Your task to perform on an android device: Go to wifi settings Image 0: 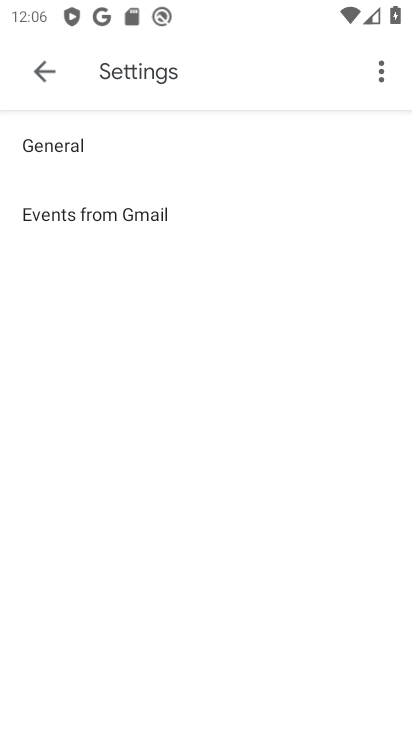
Step 0: click (52, 77)
Your task to perform on an android device: Go to wifi settings Image 1: 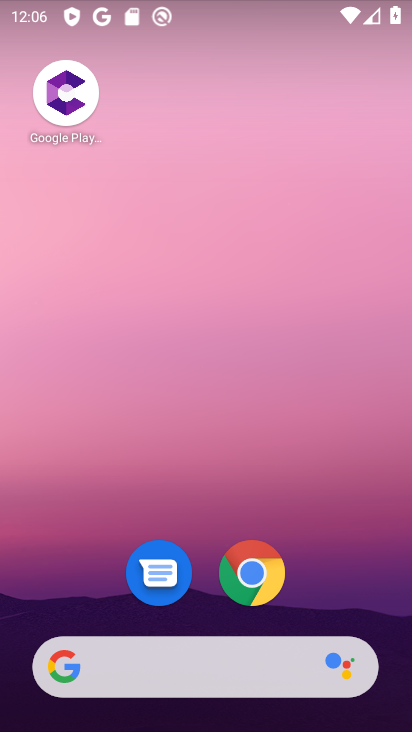
Step 1: drag from (222, 526) to (248, 160)
Your task to perform on an android device: Go to wifi settings Image 2: 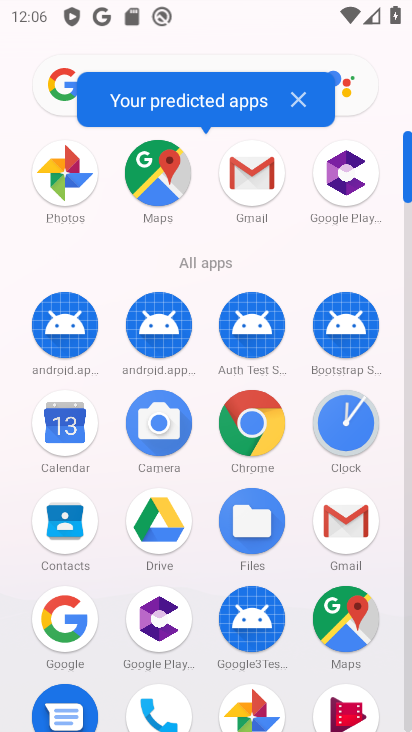
Step 2: drag from (268, 501) to (280, 156)
Your task to perform on an android device: Go to wifi settings Image 3: 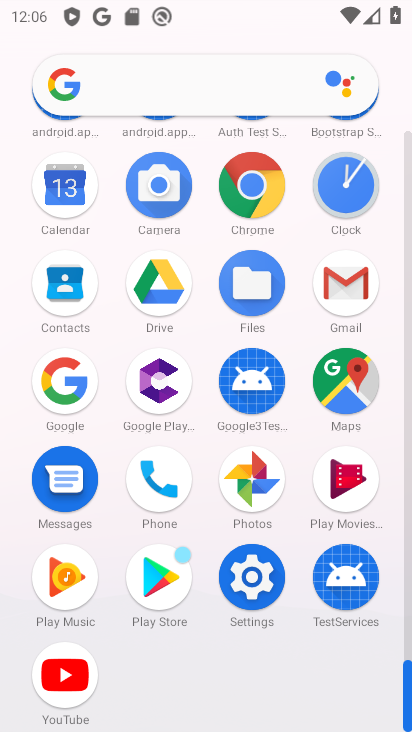
Step 3: click (249, 605)
Your task to perform on an android device: Go to wifi settings Image 4: 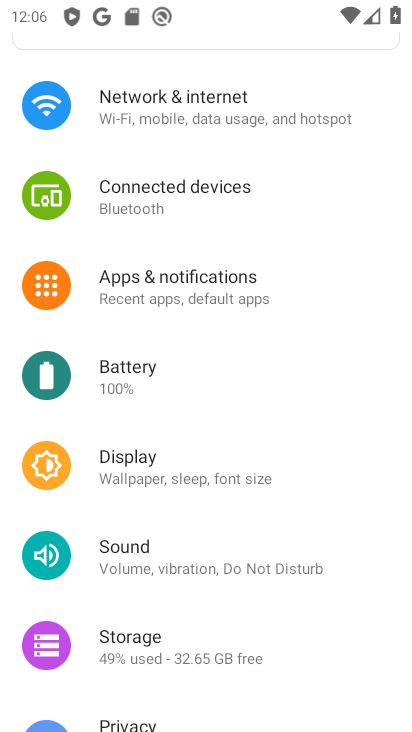
Step 4: drag from (197, 333) to (192, 667)
Your task to perform on an android device: Go to wifi settings Image 5: 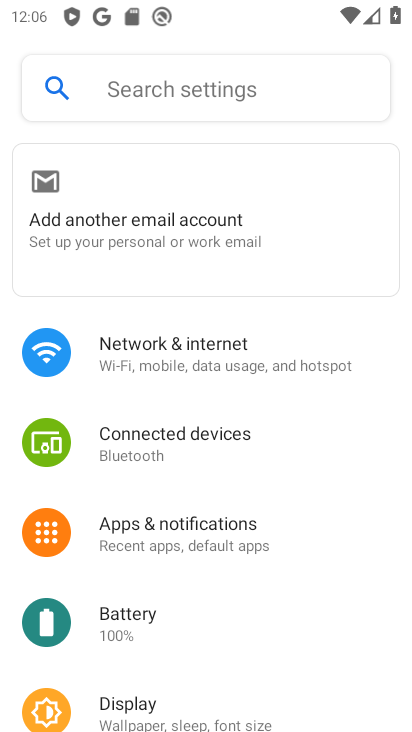
Step 5: click (230, 363)
Your task to perform on an android device: Go to wifi settings Image 6: 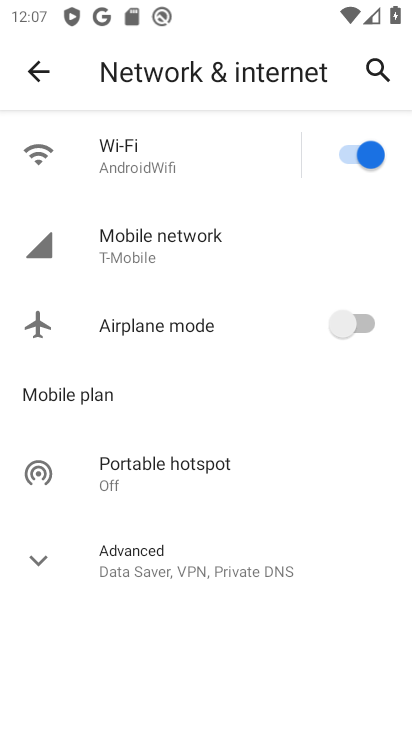
Step 6: click (196, 169)
Your task to perform on an android device: Go to wifi settings Image 7: 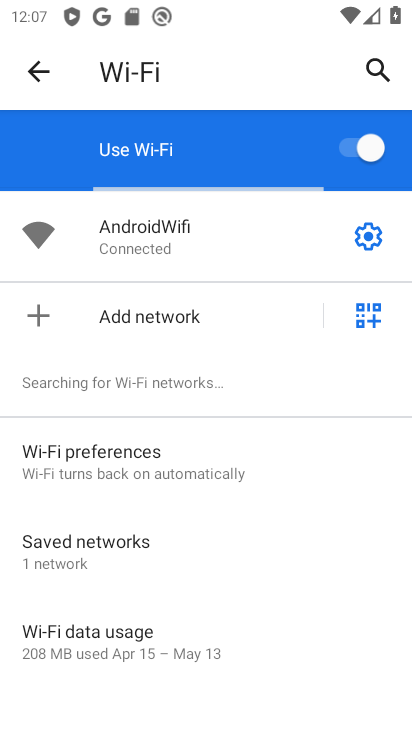
Step 7: task complete